Your task to perform on an android device: turn vacation reply on in the gmail app Image 0: 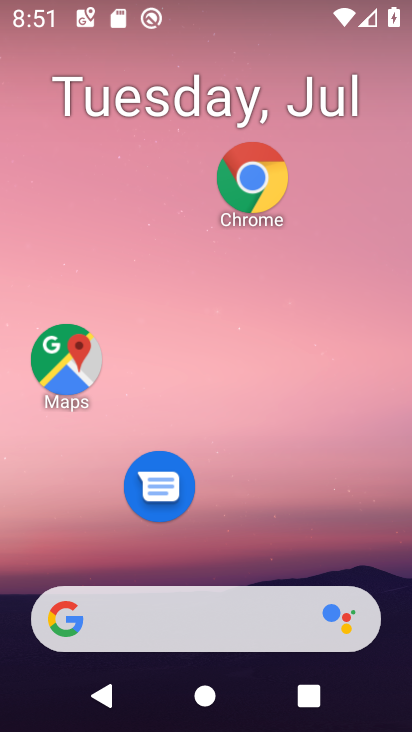
Step 0: drag from (258, 598) to (282, 125)
Your task to perform on an android device: turn vacation reply on in the gmail app Image 1: 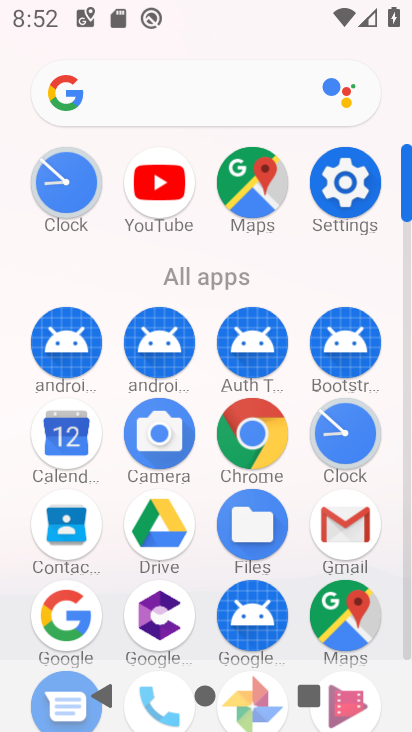
Step 1: click (344, 550)
Your task to perform on an android device: turn vacation reply on in the gmail app Image 2: 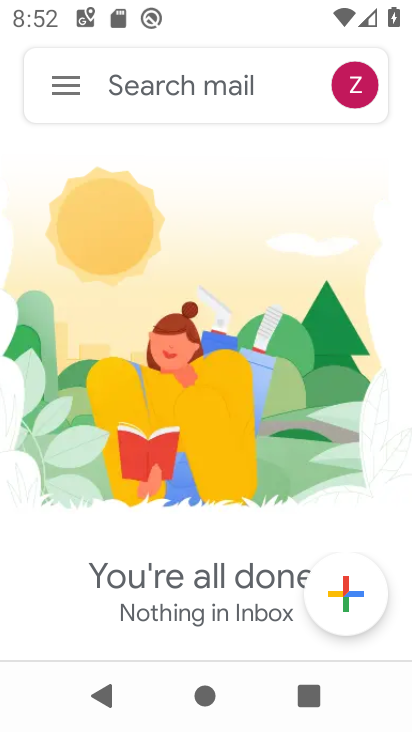
Step 2: click (69, 100)
Your task to perform on an android device: turn vacation reply on in the gmail app Image 3: 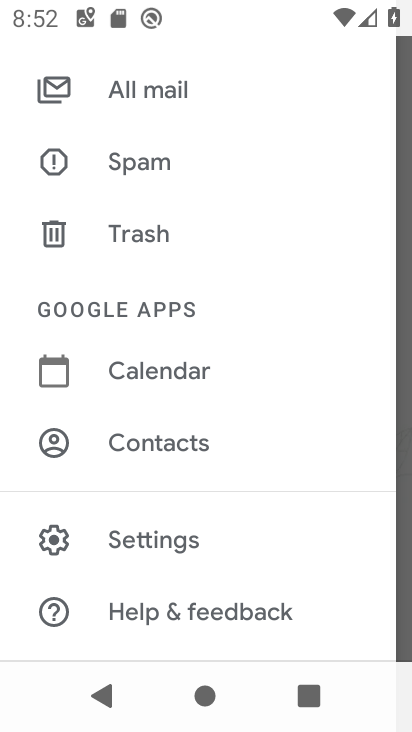
Step 3: click (114, 532)
Your task to perform on an android device: turn vacation reply on in the gmail app Image 4: 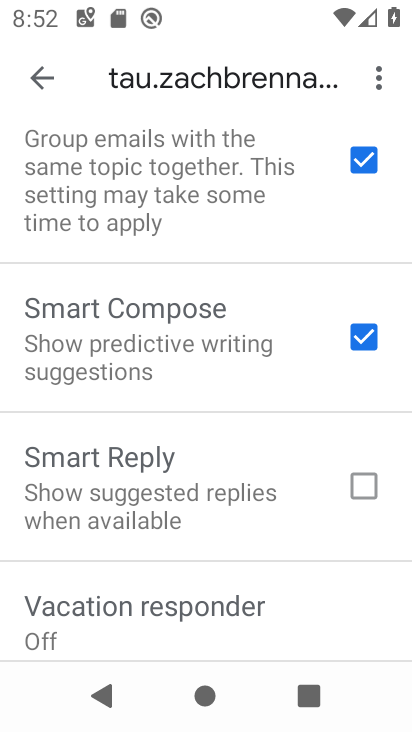
Step 4: click (153, 623)
Your task to perform on an android device: turn vacation reply on in the gmail app Image 5: 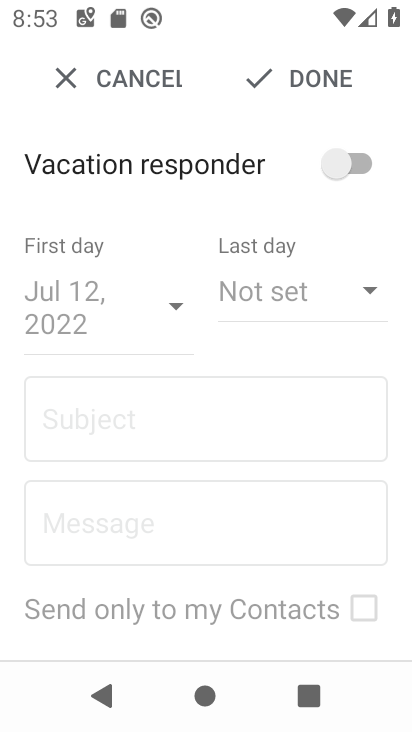
Step 5: click (357, 159)
Your task to perform on an android device: turn vacation reply on in the gmail app Image 6: 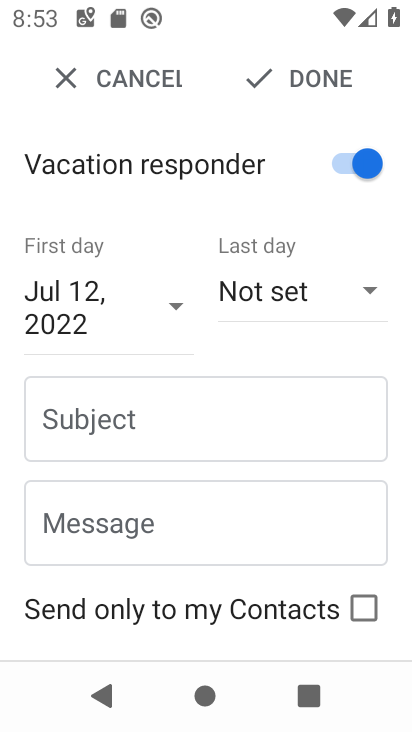
Step 6: task complete